Your task to perform on an android device: search for starred emails in the gmail app Image 0: 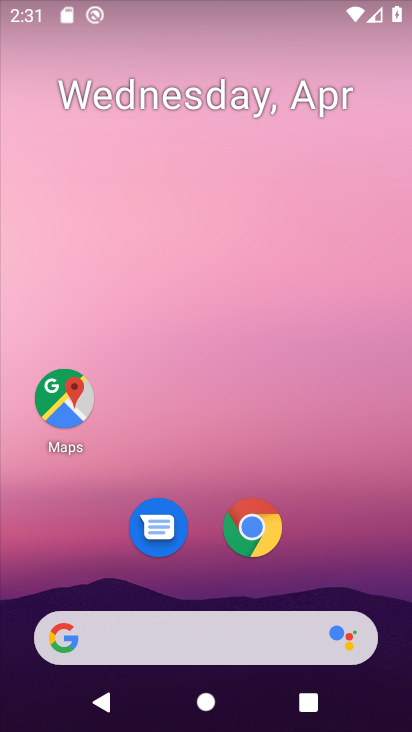
Step 0: drag from (215, 635) to (375, 47)
Your task to perform on an android device: search for starred emails in the gmail app Image 1: 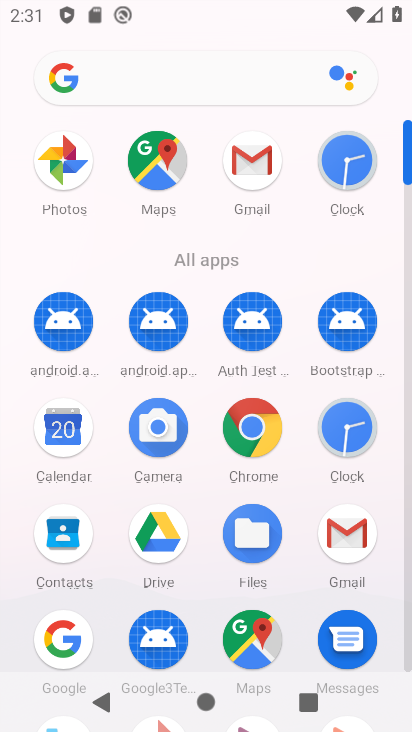
Step 1: click (255, 177)
Your task to perform on an android device: search for starred emails in the gmail app Image 2: 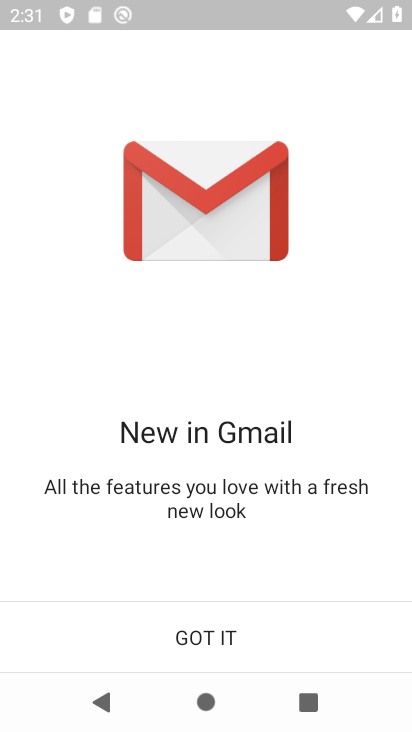
Step 2: click (212, 640)
Your task to perform on an android device: search for starred emails in the gmail app Image 3: 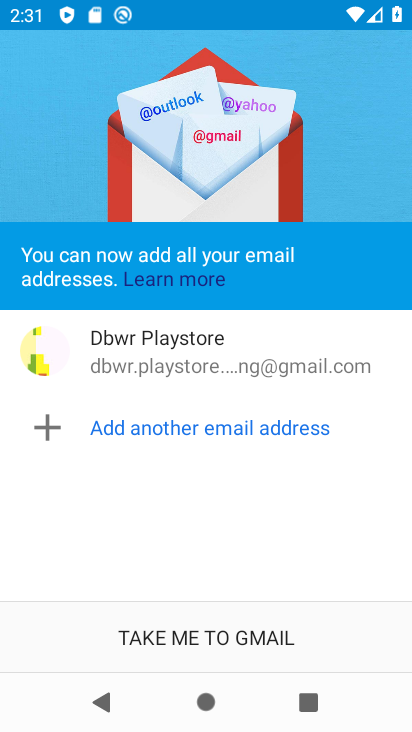
Step 3: click (215, 636)
Your task to perform on an android device: search for starred emails in the gmail app Image 4: 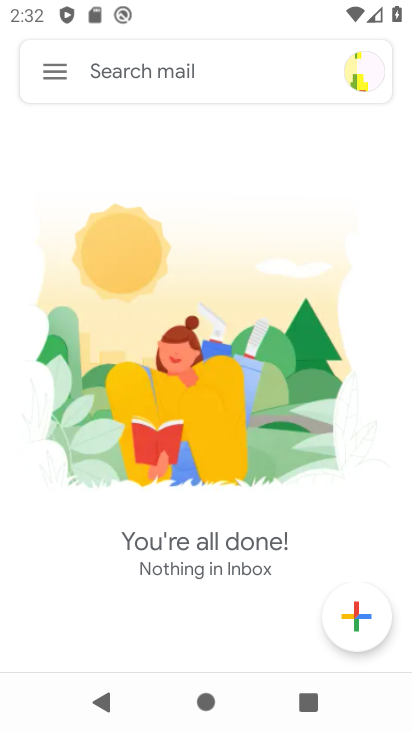
Step 4: click (60, 67)
Your task to perform on an android device: search for starred emails in the gmail app Image 5: 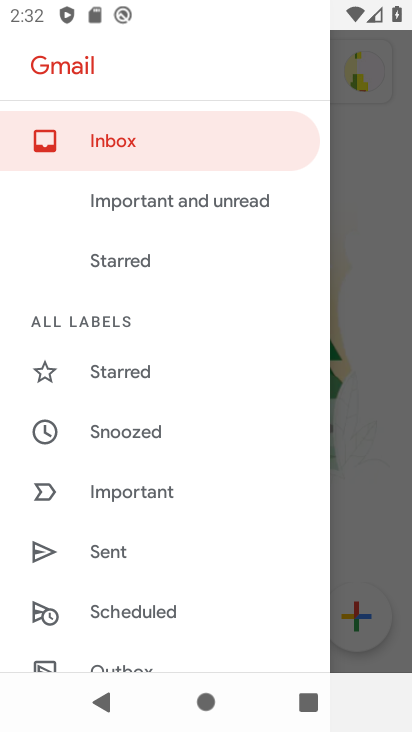
Step 5: click (127, 371)
Your task to perform on an android device: search for starred emails in the gmail app Image 6: 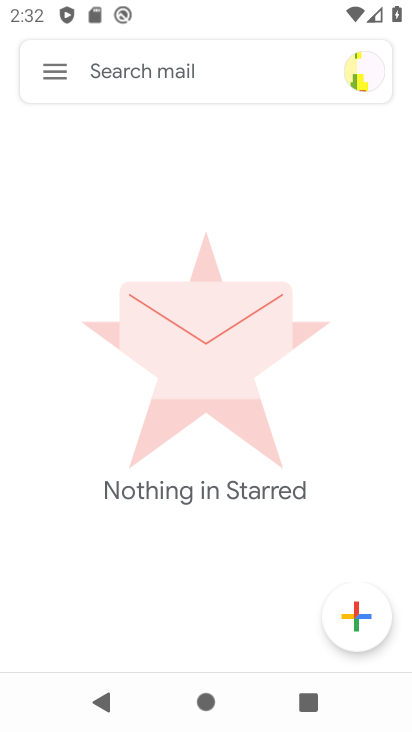
Step 6: task complete